Your task to perform on an android device: see tabs open on other devices in the chrome app Image 0: 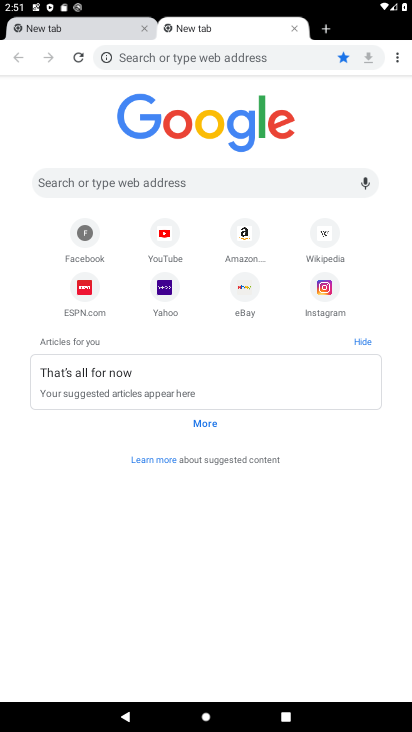
Step 0: click (320, 29)
Your task to perform on an android device: see tabs open on other devices in the chrome app Image 1: 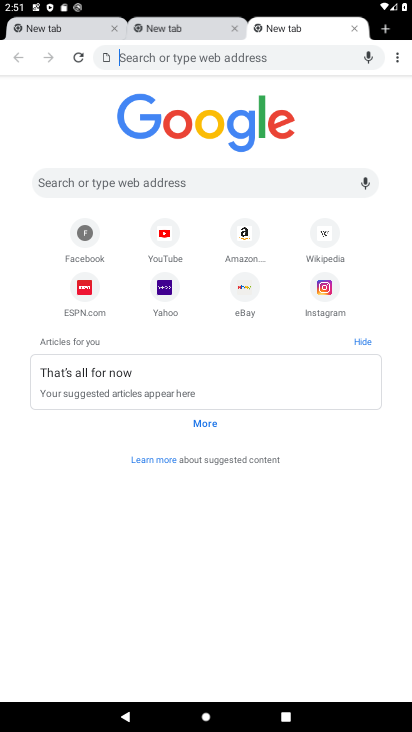
Step 1: task complete